Your task to perform on an android device: Go to display settings Image 0: 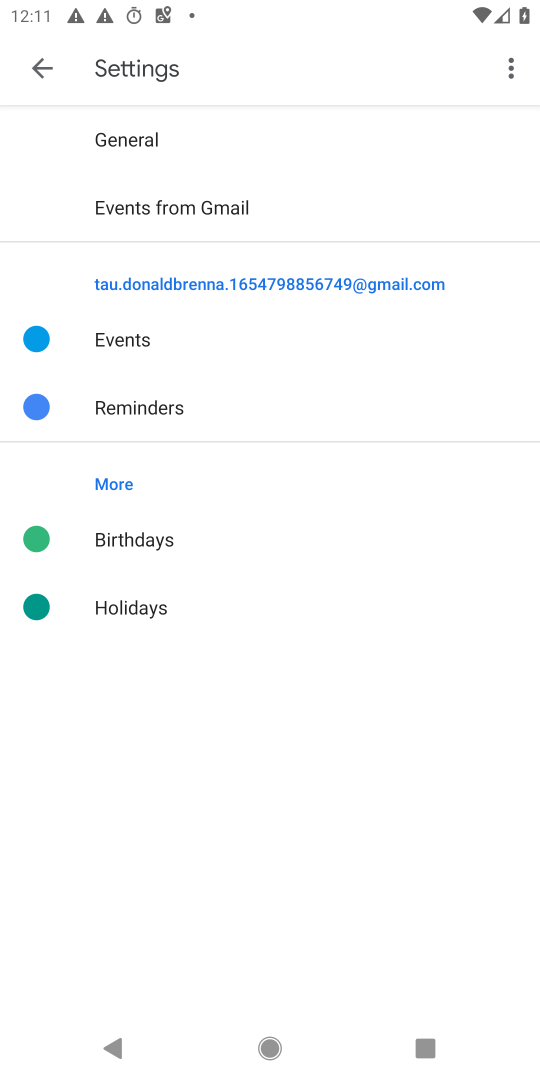
Step 0: press home button
Your task to perform on an android device: Go to display settings Image 1: 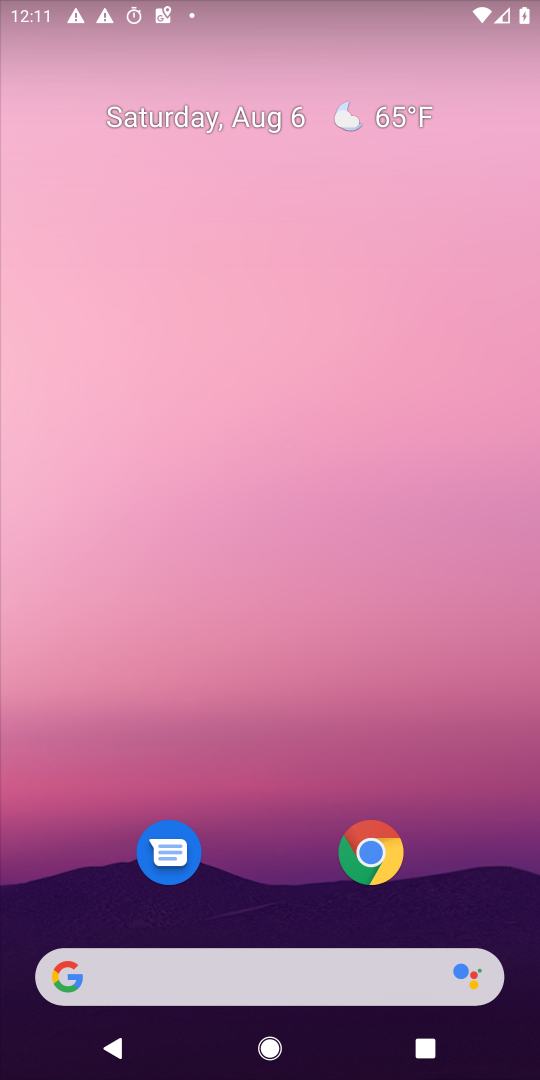
Step 1: drag from (413, 1018) to (413, 247)
Your task to perform on an android device: Go to display settings Image 2: 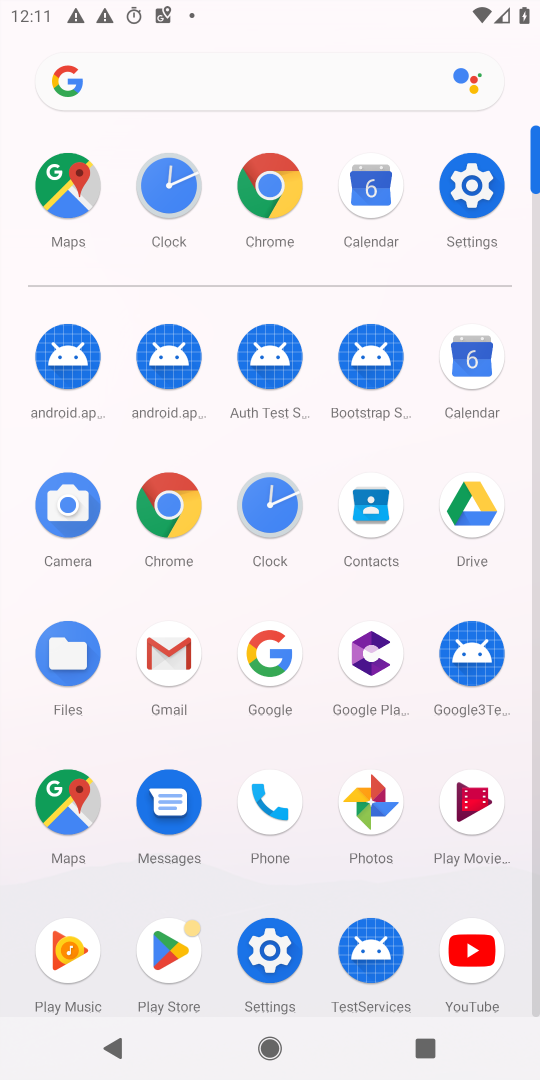
Step 2: click (470, 190)
Your task to perform on an android device: Go to display settings Image 3: 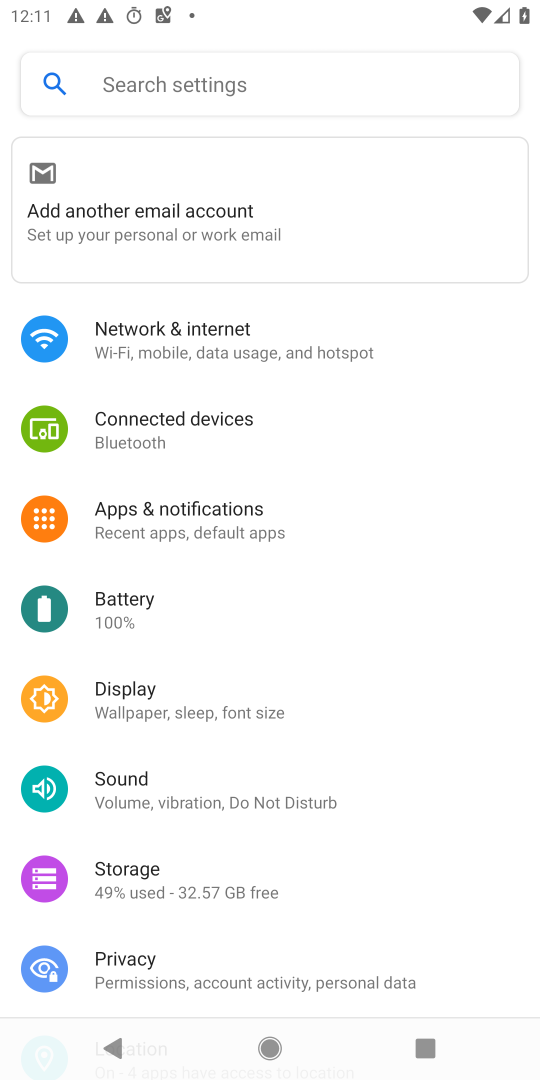
Step 3: click (165, 694)
Your task to perform on an android device: Go to display settings Image 4: 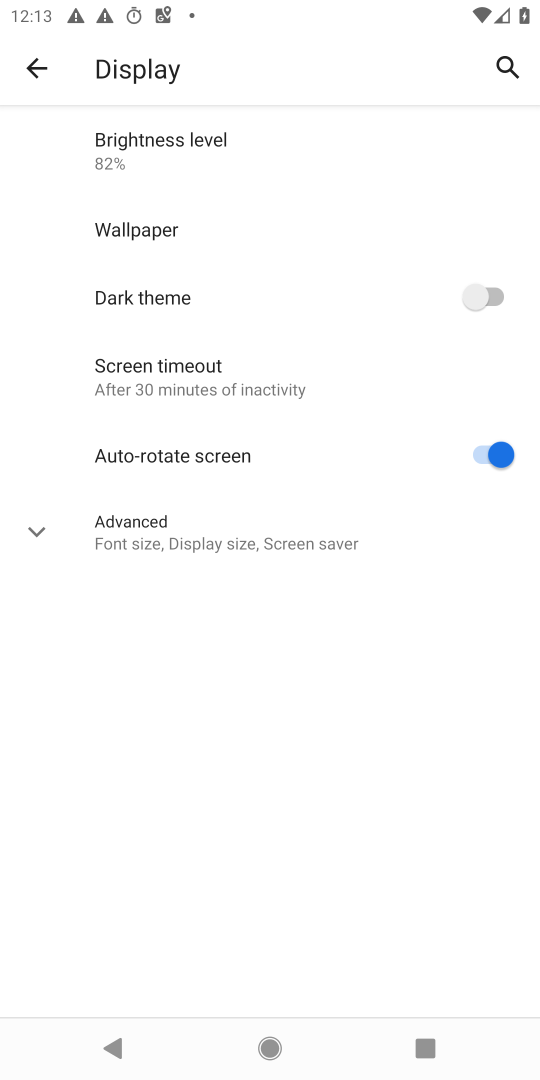
Step 4: task complete